Your task to perform on an android device: What's the weather going to be tomorrow? Image 0: 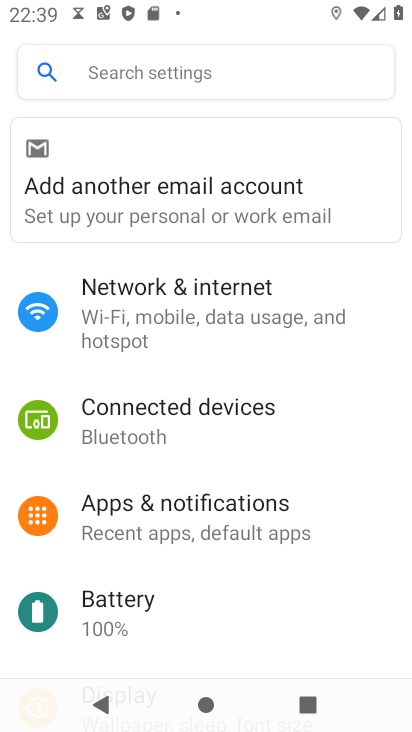
Step 0: press home button
Your task to perform on an android device: What's the weather going to be tomorrow? Image 1: 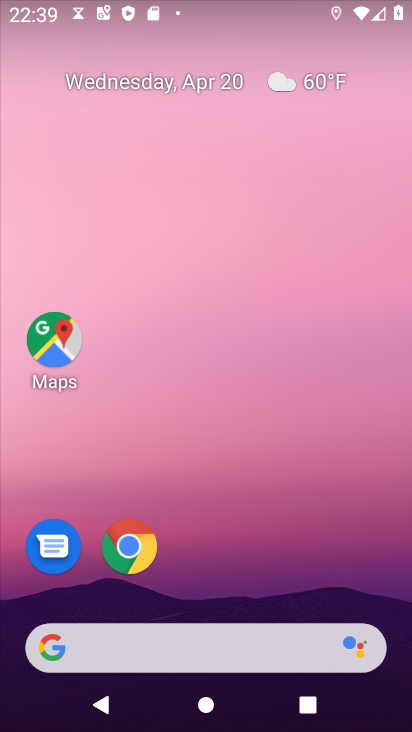
Step 1: click (302, 83)
Your task to perform on an android device: What's the weather going to be tomorrow? Image 2: 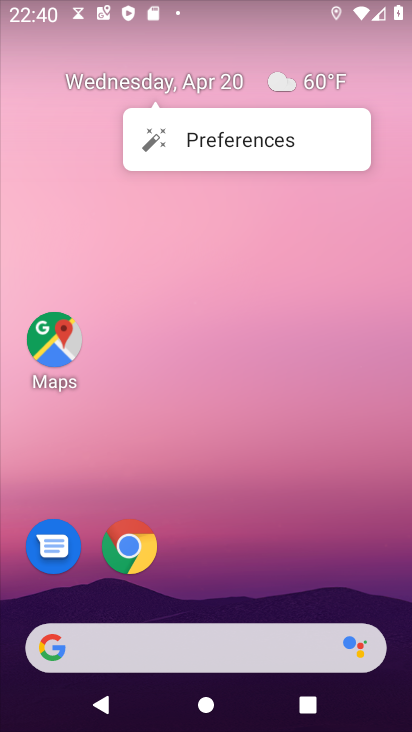
Step 2: click (323, 79)
Your task to perform on an android device: What's the weather going to be tomorrow? Image 3: 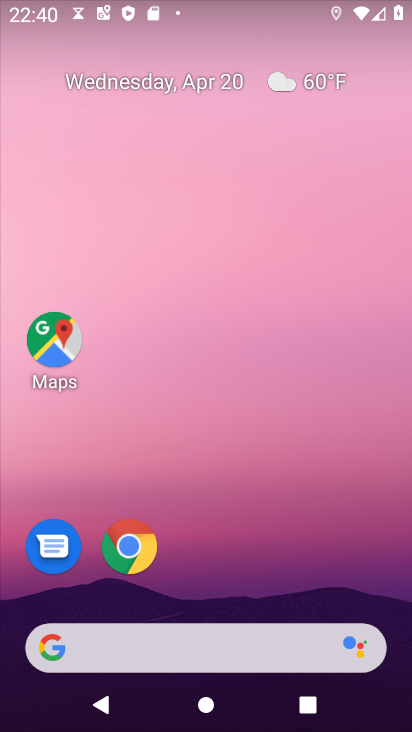
Step 3: click (308, 73)
Your task to perform on an android device: What's the weather going to be tomorrow? Image 4: 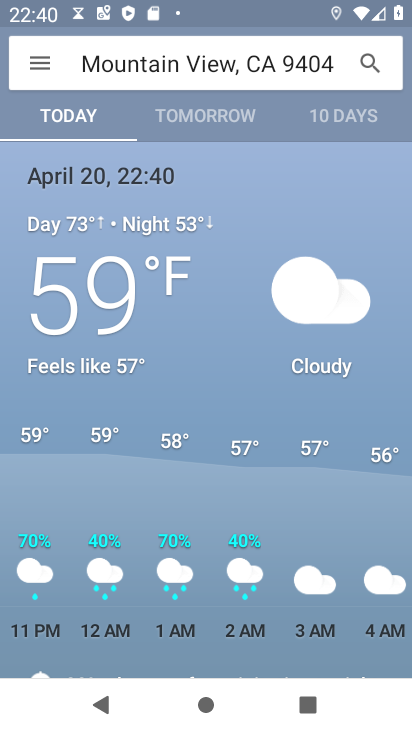
Step 4: click (206, 117)
Your task to perform on an android device: What's the weather going to be tomorrow? Image 5: 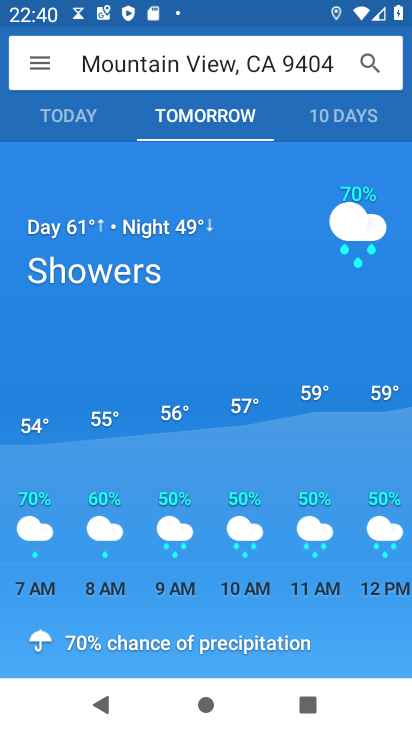
Step 5: task complete